Your task to perform on an android device: check google app version Image 0: 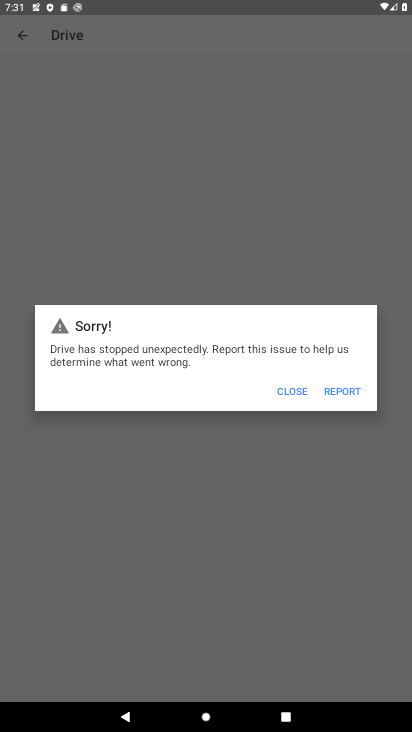
Step 0: press home button
Your task to perform on an android device: check google app version Image 1: 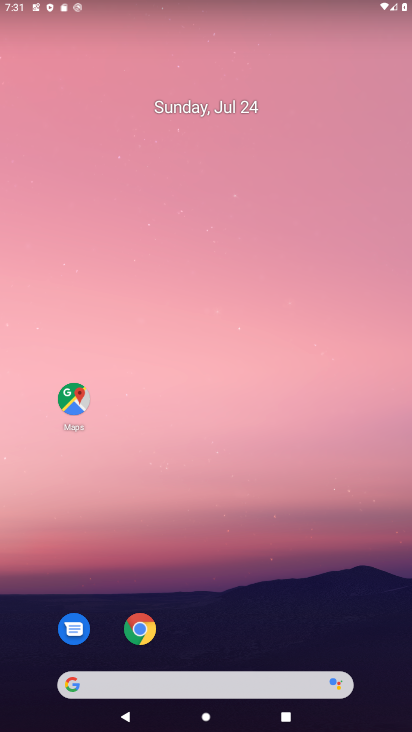
Step 1: drag from (370, 620) to (365, 91)
Your task to perform on an android device: check google app version Image 2: 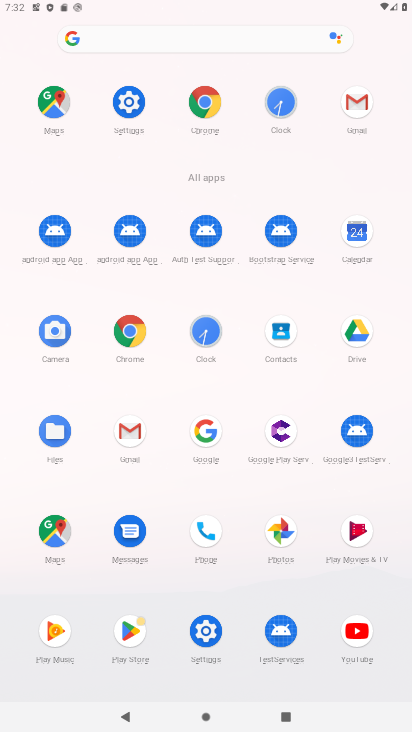
Step 2: click (204, 446)
Your task to perform on an android device: check google app version Image 3: 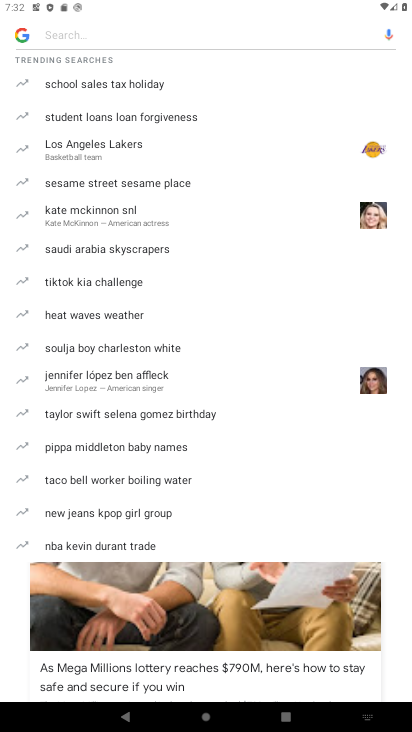
Step 3: press back button
Your task to perform on an android device: check google app version Image 4: 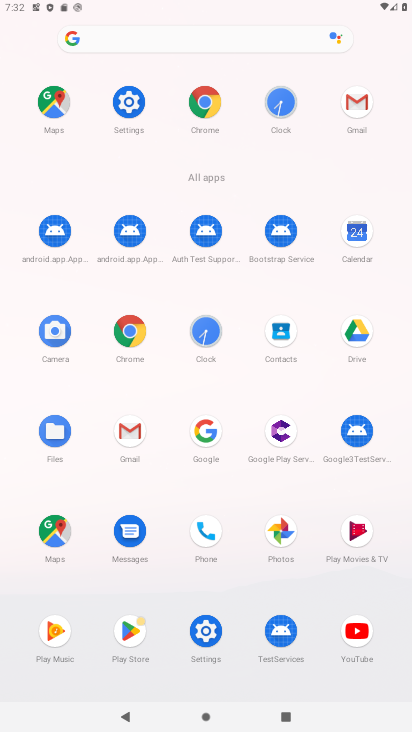
Step 4: click (205, 435)
Your task to perform on an android device: check google app version Image 5: 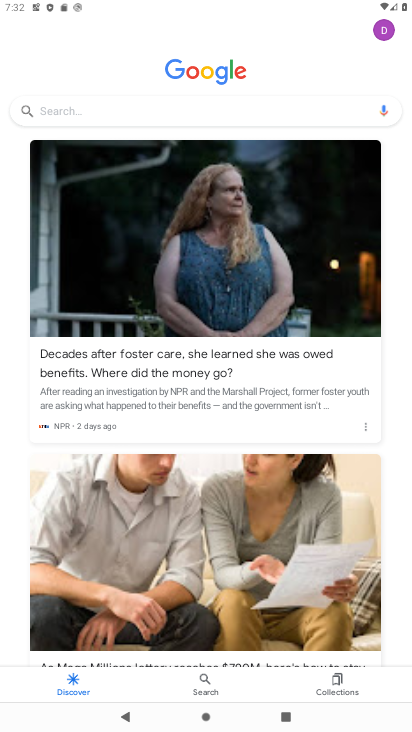
Step 5: click (382, 37)
Your task to perform on an android device: check google app version Image 6: 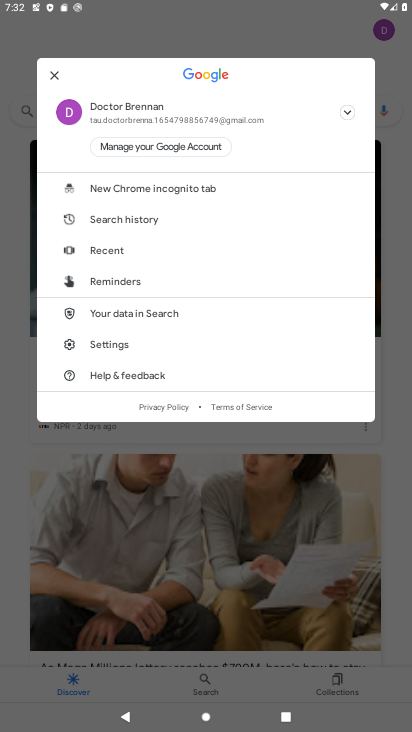
Step 6: click (125, 354)
Your task to perform on an android device: check google app version Image 7: 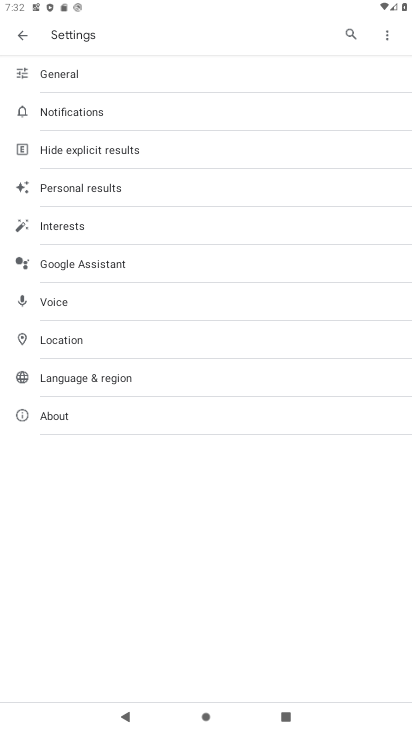
Step 7: click (92, 414)
Your task to perform on an android device: check google app version Image 8: 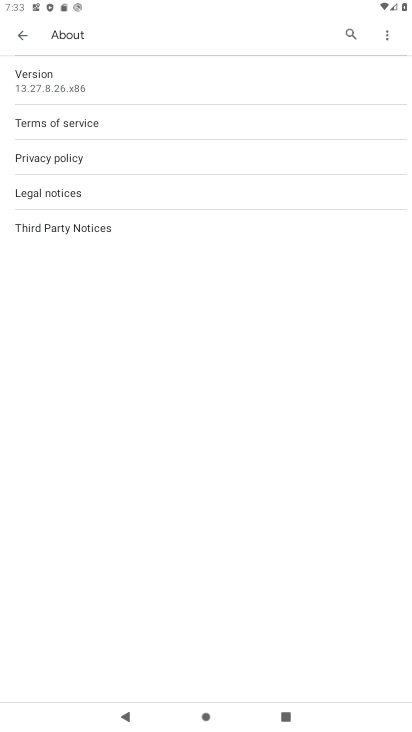
Step 8: task complete